Your task to perform on an android device: Open accessibility settings Image 0: 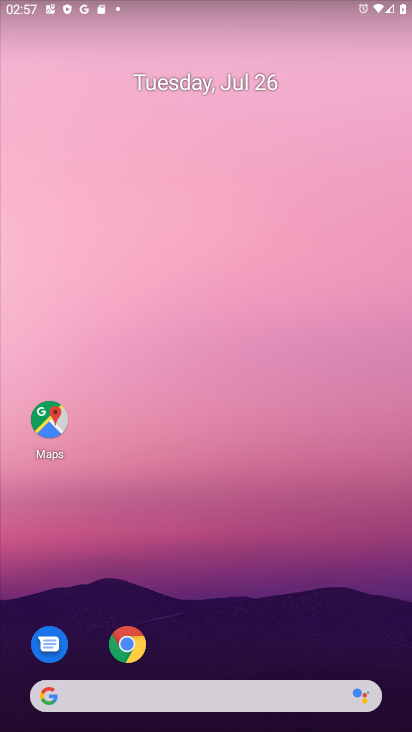
Step 0: drag from (222, 664) to (216, 60)
Your task to perform on an android device: Open accessibility settings Image 1: 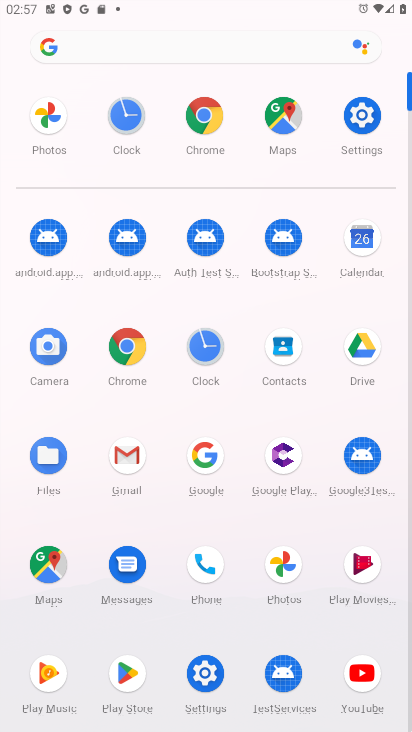
Step 1: click (355, 107)
Your task to perform on an android device: Open accessibility settings Image 2: 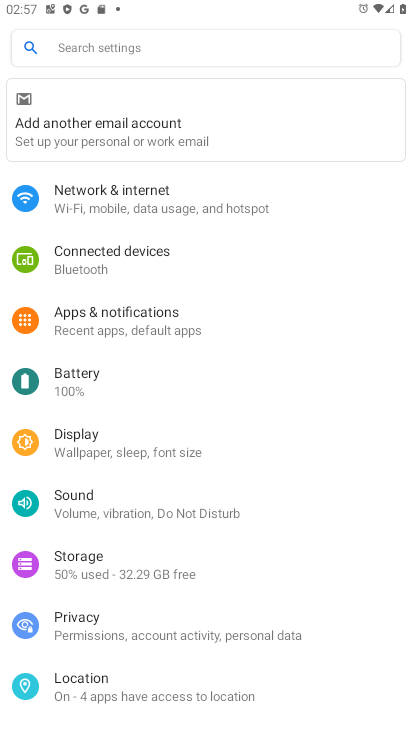
Step 2: drag from (162, 650) to (107, 200)
Your task to perform on an android device: Open accessibility settings Image 3: 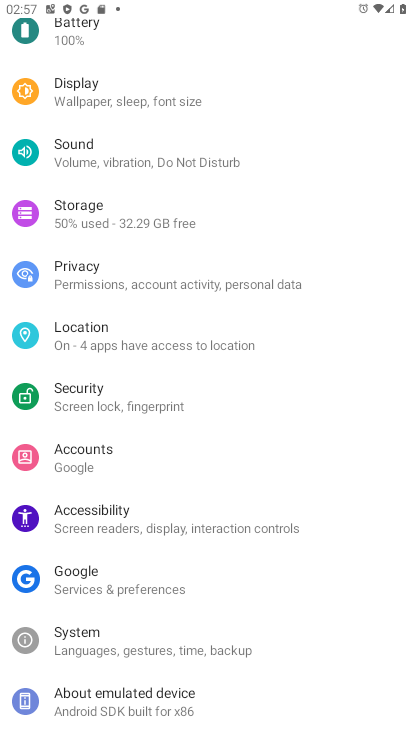
Step 3: click (73, 519)
Your task to perform on an android device: Open accessibility settings Image 4: 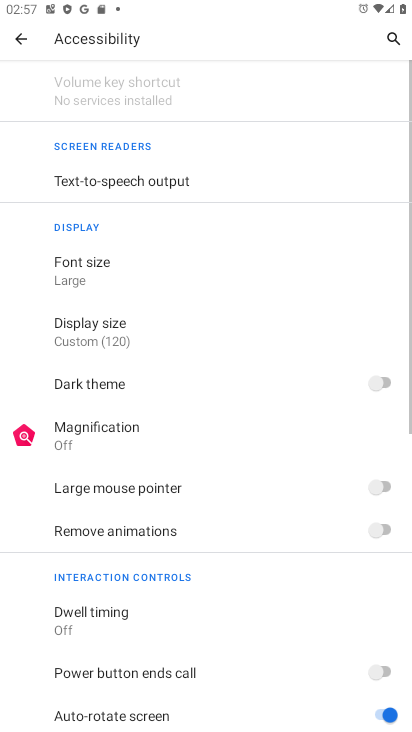
Step 4: task complete